Your task to perform on an android device: uninstall "HBO Max: Stream TV & Movies" Image 0: 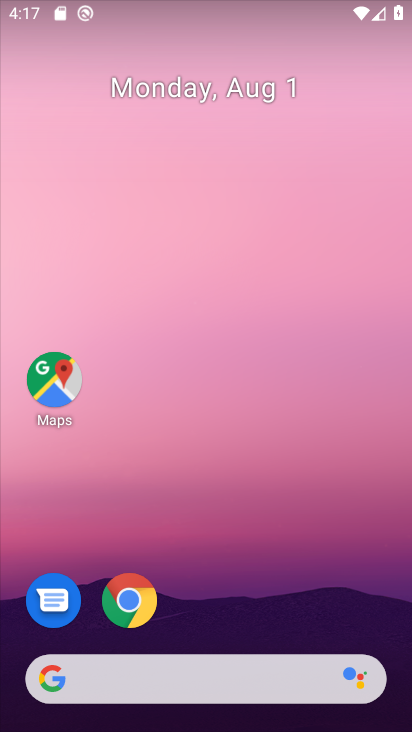
Step 0: drag from (328, 638) to (288, 64)
Your task to perform on an android device: uninstall "HBO Max: Stream TV & Movies" Image 1: 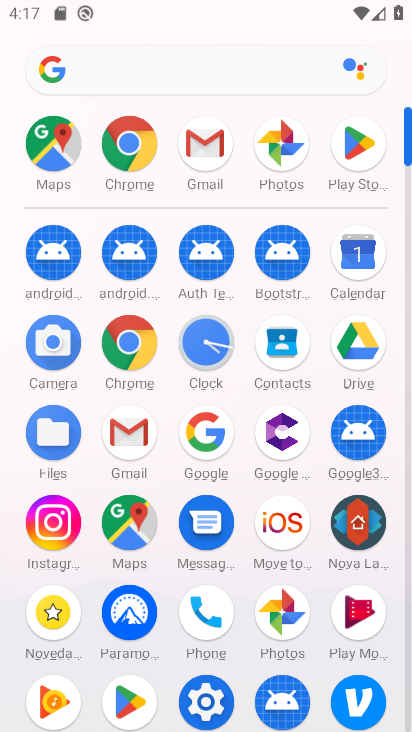
Step 1: click (360, 140)
Your task to perform on an android device: uninstall "HBO Max: Stream TV & Movies" Image 2: 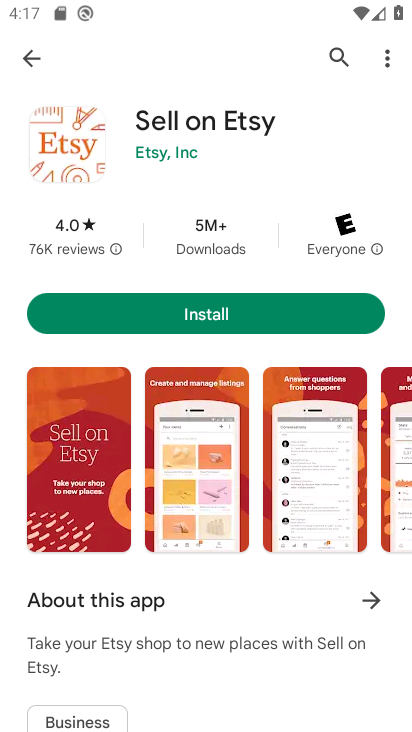
Step 2: click (328, 59)
Your task to perform on an android device: uninstall "HBO Max: Stream TV & Movies" Image 3: 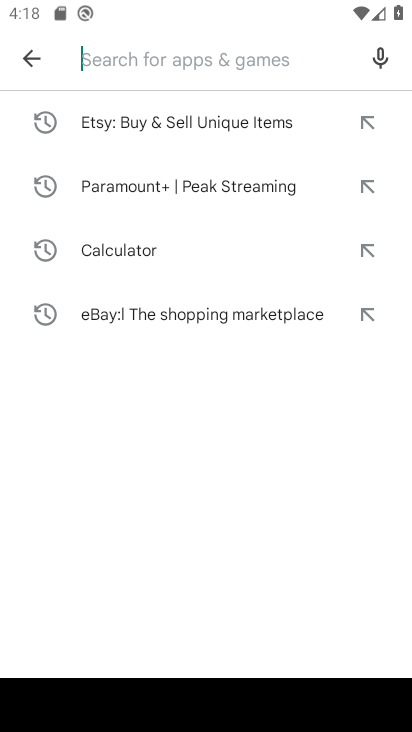
Step 3: type "HBO Max: Stream TV & Movies"
Your task to perform on an android device: uninstall "HBO Max: Stream TV & Movies" Image 4: 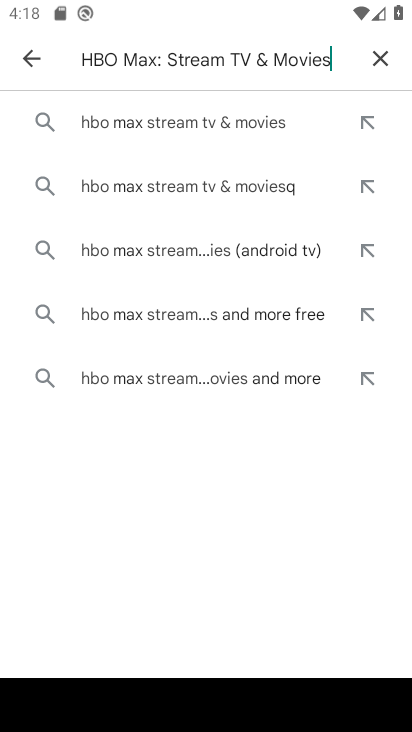
Step 4: press enter
Your task to perform on an android device: uninstall "HBO Max: Stream TV & Movies" Image 5: 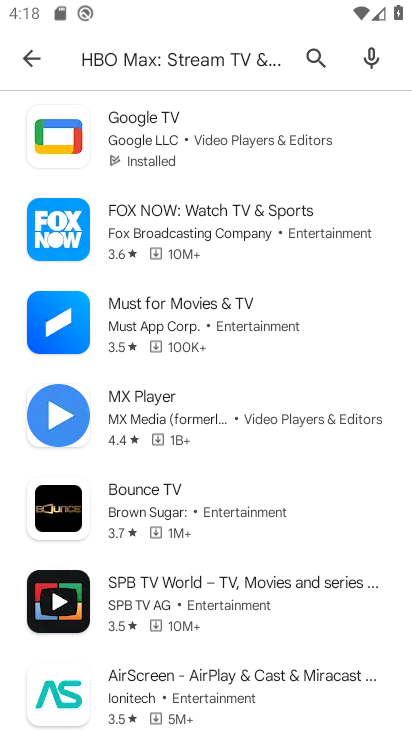
Step 5: task complete